Your task to perform on an android device: turn on bluetooth scan Image 0: 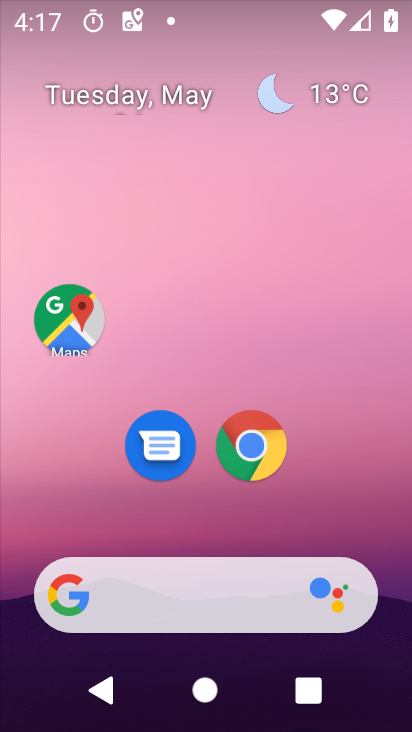
Step 0: drag from (202, 528) to (221, 83)
Your task to perform on an android device: turn on bluetooth scan Image 1: 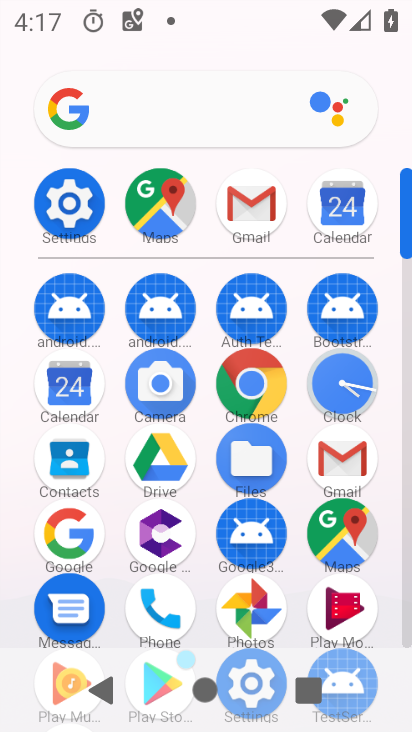
Step 1: click (67, 188)
Your task to perform on an android device: turn on bluetooth scan Image 2: 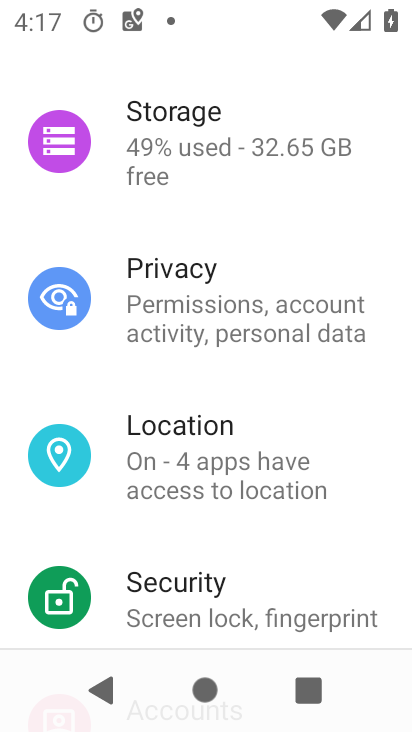
Step 2: drag from (142, 207) to (199, 654)
Your task to perform on an android device: turn on bluetooth scan Image 3: 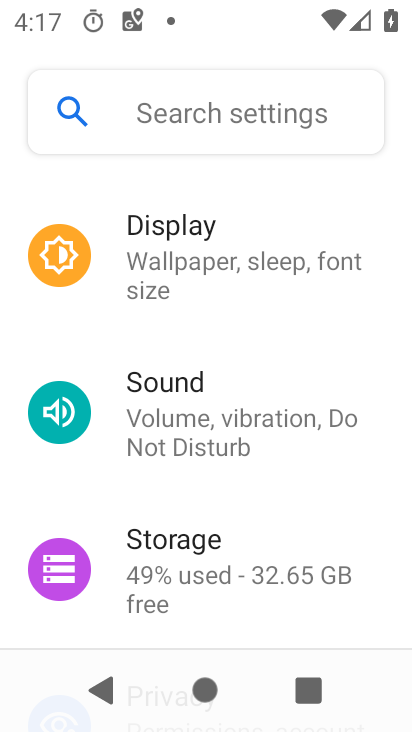
Step 3: drag from (227, 610) to (217, 167)
Your task to perform on an android device: turn on bluetooth scan Image 4: 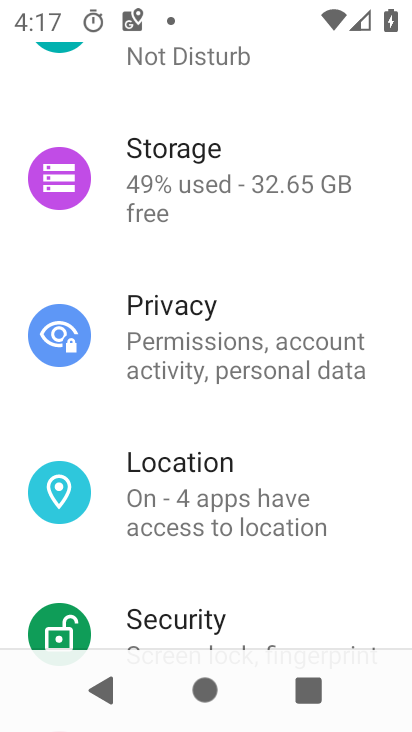
Step 4: click (247, 467)
Your task to perform on an android device: turn on bluetooth scan Image 5: 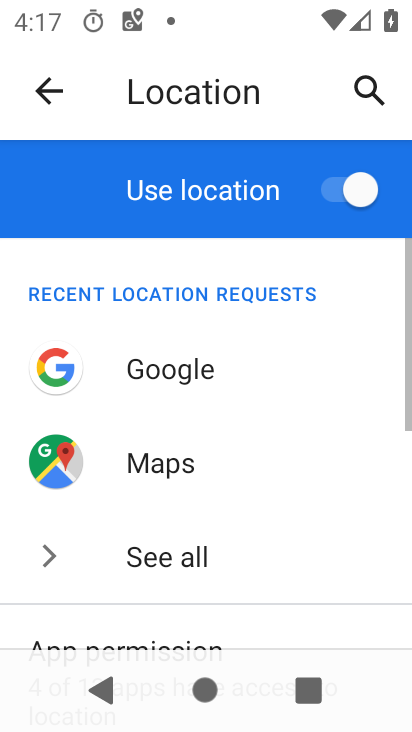
Step 5: drag from (214, 601) to (224, 273)
Your task to perform on an android device: turn on bluetooth scan Image 6: 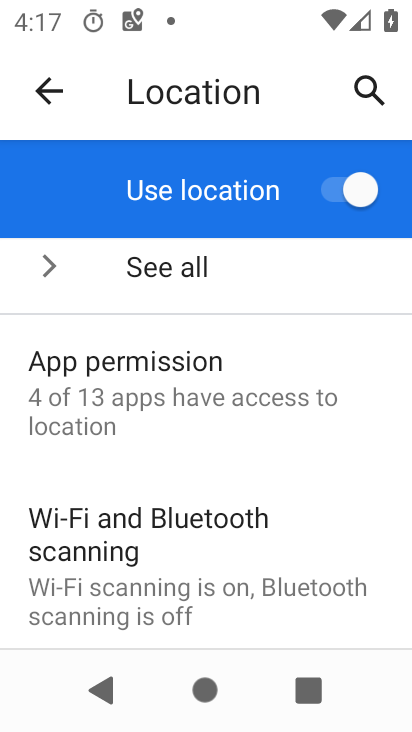
Step 6: click (194, 563)
Your task to perform on an android device: turn on bluetooth scan Image 7: 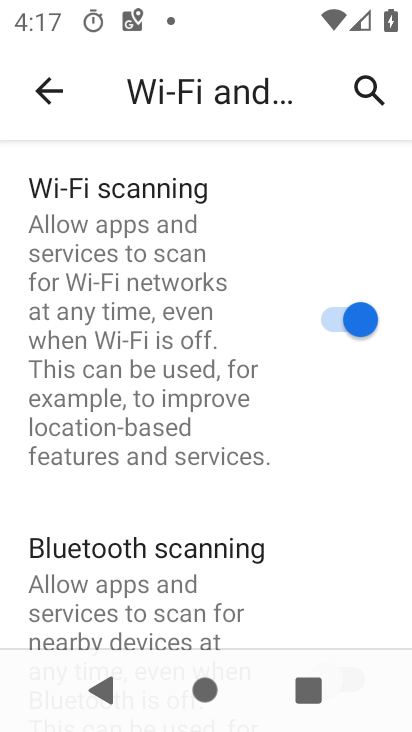
Step 7: drag from (214, 594) to (198, 321)
Your task to perform on an android device: turn on bluetooth scan Image 8: 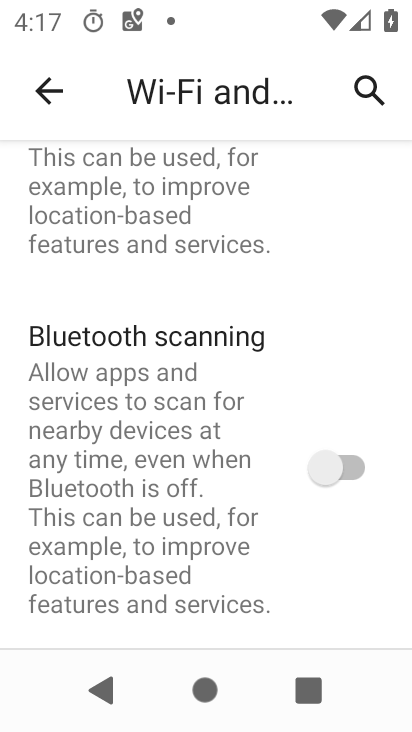
Step 8: click (349, 535)
Your task to perform on an android device: turn on bluetooth scan Image 9: 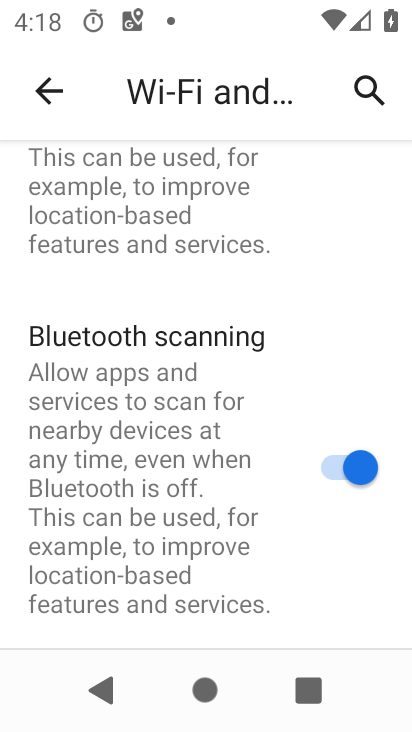
Step 9: task complete